Your task to perform on an android device: toggle data saver in the chrome app Image 0: 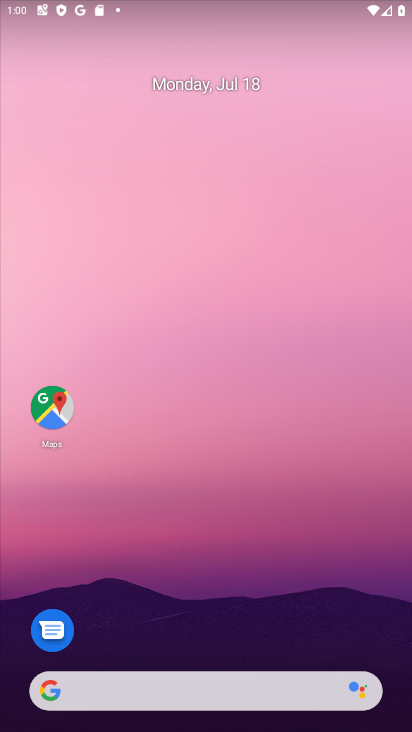
Step 0: drag from (305, 683) to (294, 54)
Your task to perform on an android device: toggle data saver in the chrome app Image 1: 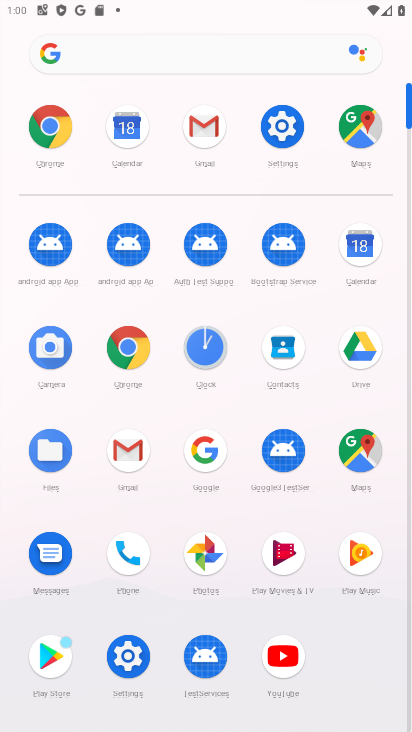
Step 1: click (129, 360)
Your task to perform on an android device: toggle data saver in the chrome app Image 2: 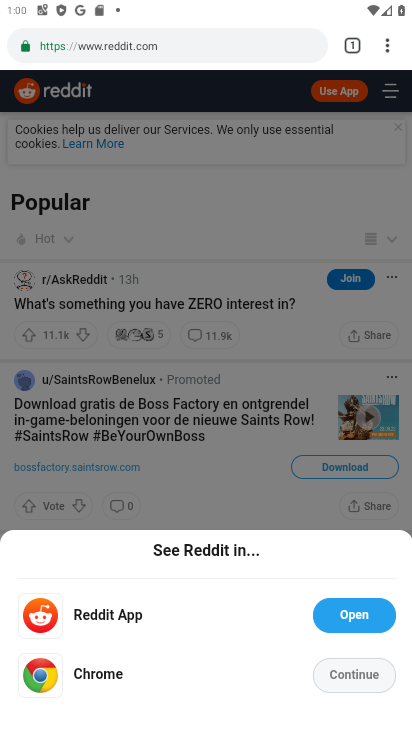
Step 2: drag from (387, 57) to (234, 558)
Your task to perform on an android device: toggle data saver in the chrome app Image 3: 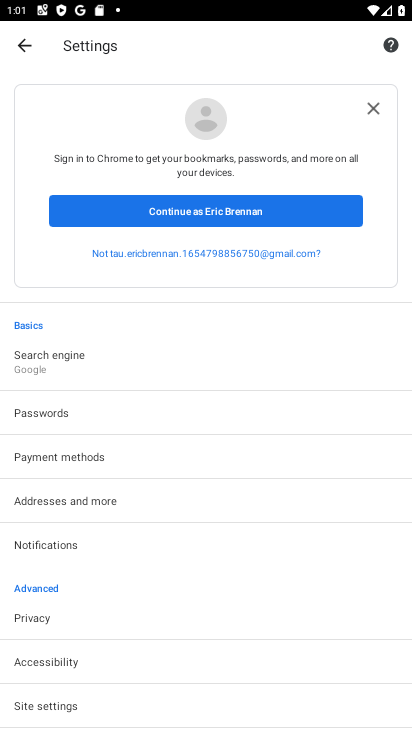
Step 3: drag from (239, 677) to (245, 201)
Your task to perform on an android device: toggle data saver in the chrome app Image 4: 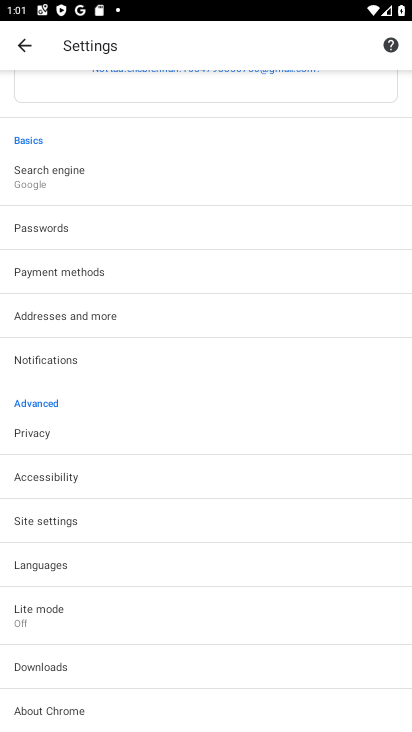
Step 4: click (76, 614)
Your task to perform on an android device: toggle data saver in the chrome app Image 5: 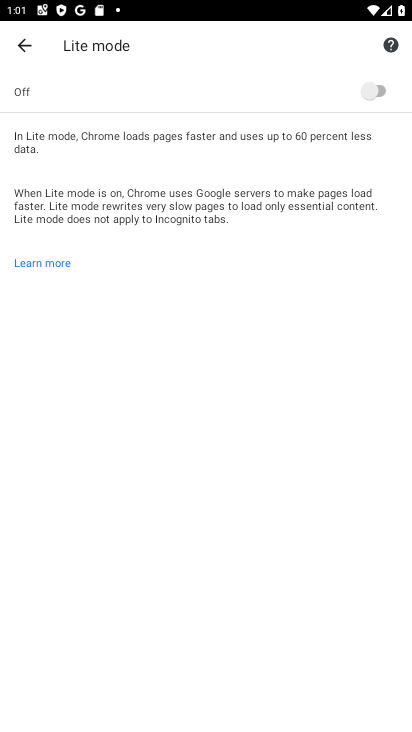
Step 5: click (378, 87)
Your task to perform on an android device: toggle data saver in the chrome app Image 6: 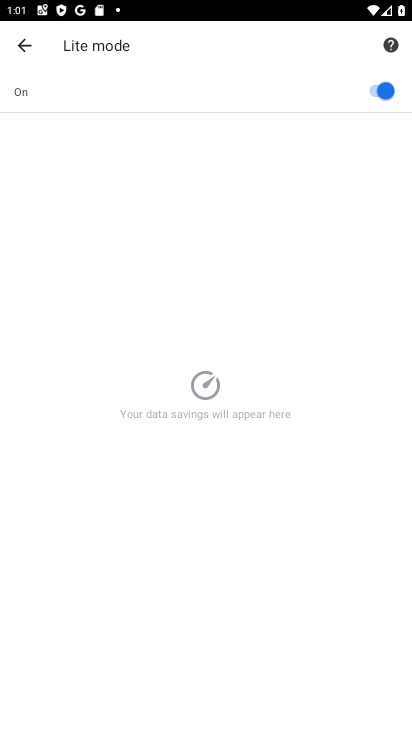
Step 6: task complete